Your task to perform on an android device: Show me recent news Image 0: 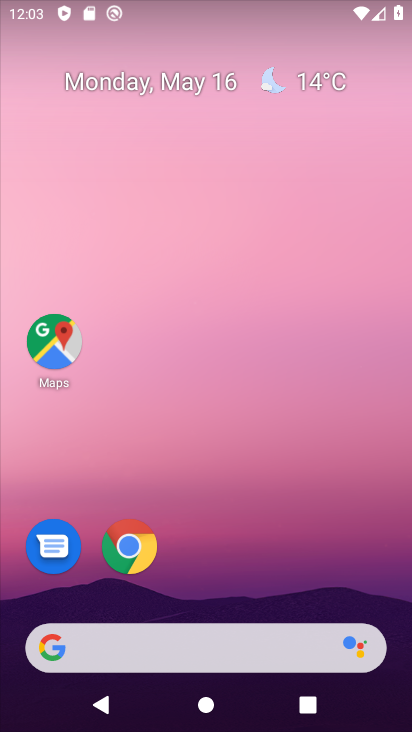
Step 0: click (153, 651)
Your task to perform on an android device: Show me recent news Image 1: 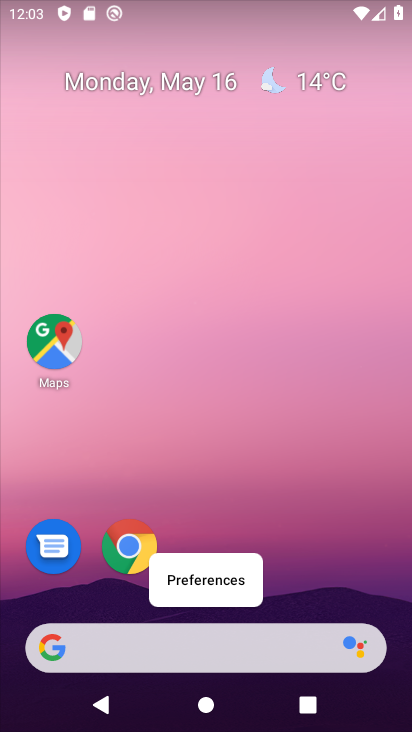
Step 1: drag from (305, 569) to (302, 189)
Your task to perform on an android device: Show me recent news Image 2: 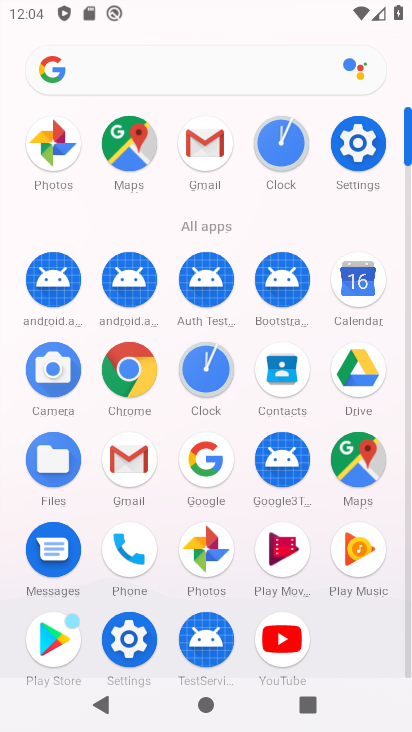
Step 2: click (203, 478)
Your task to perform on an android device: Show me recent news Image 3: 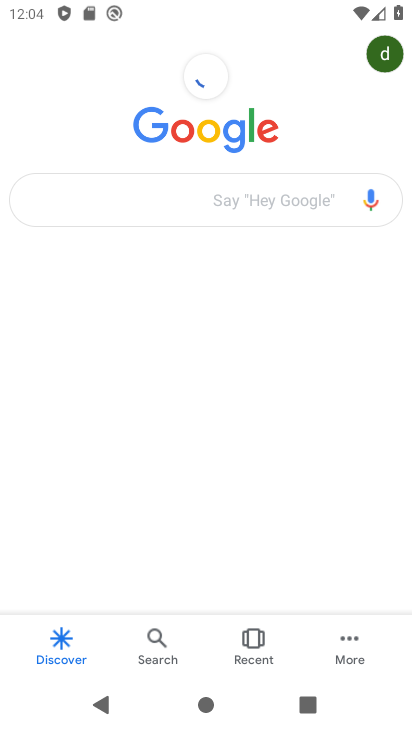
Step 3: click (196, 198)
Your task to perform on an android device: Show me recent news Image 4: 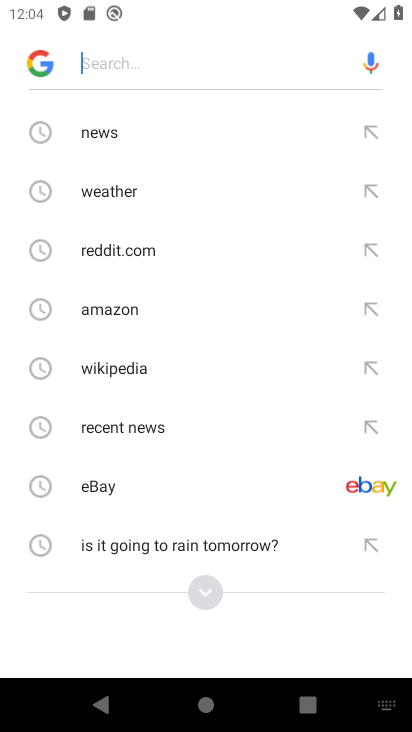
Step 4: type "recent news"
Your task to perform on an android device: Show me recent news Image 5: 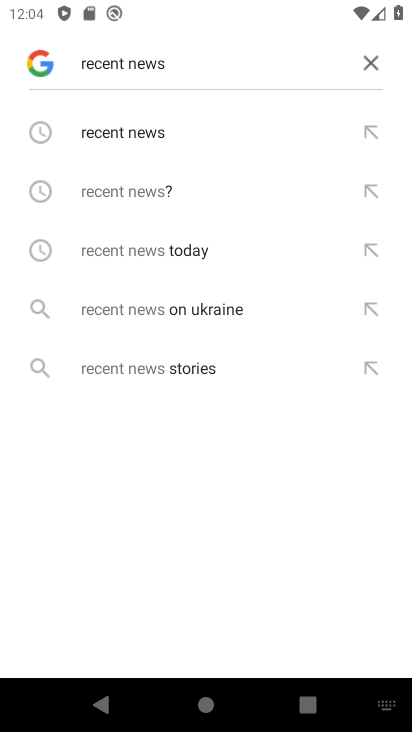
Step 5: click (126, 137)
Your task to perform on an android device: Show me recent news Image 6: 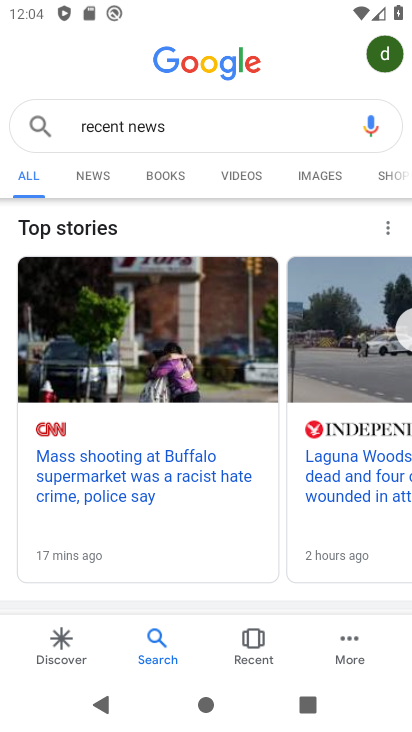
Step 6: task complete